Your task to perform on an android device: toggle priority inbox in the gmail app Image 0: 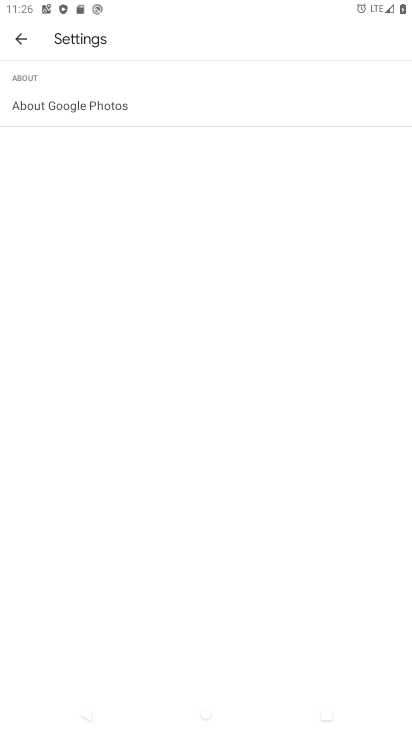
Step 0: press home button
Your task to perform on an android device: toggle priority inbox in the gmail app Image 1: 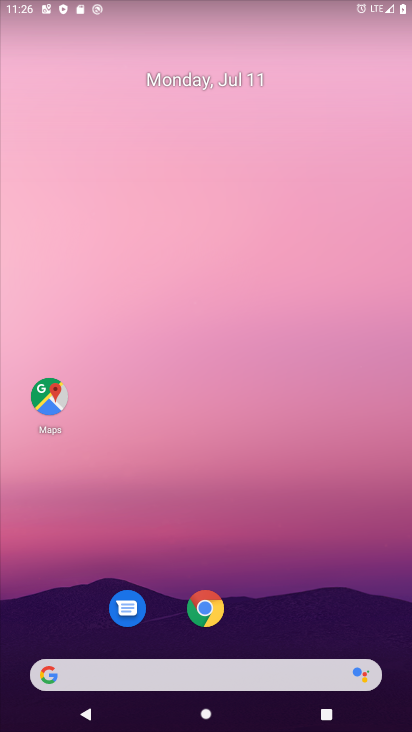
Step 1: drag from (37, 713) to (175, 85)
Your task to perform on an android device: toggle priority inbox in the gmail app Image 2: 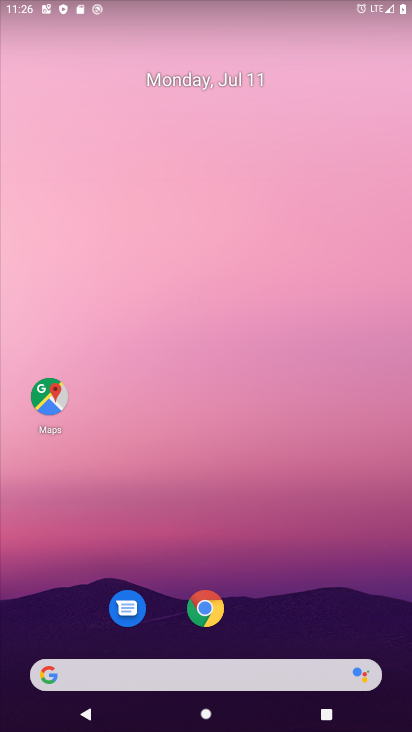
Step 2: drag from (79, 563) to (227, 0)
Your task to perform on an android device: toggle priority inbox in the gmail app Image 3: 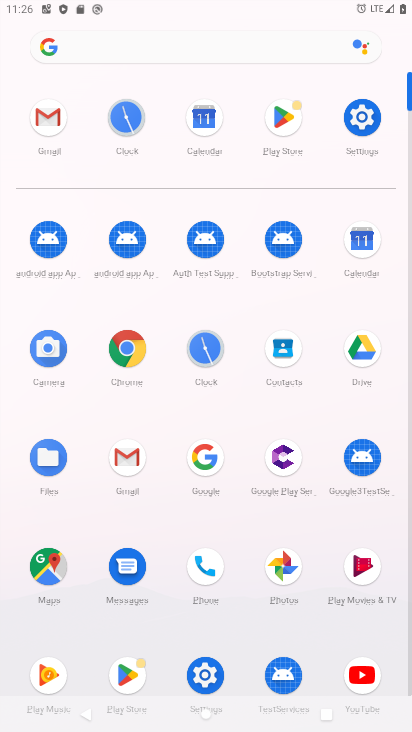
Step 3: click (38, 119)
Your task to perform on an android device: toggle priority inbox in the gmail app Image 4: 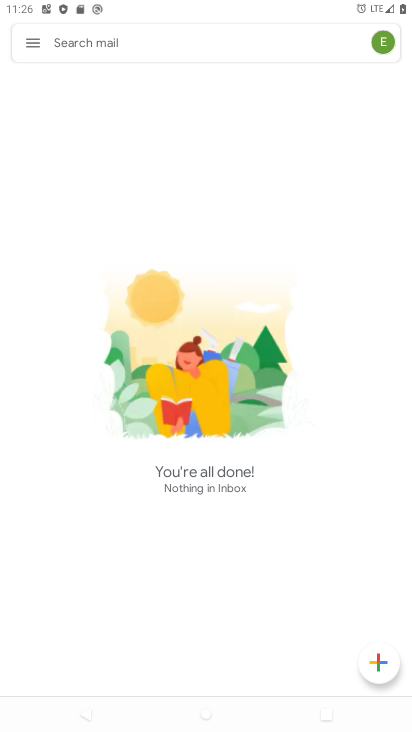
Step 4: click (43, 41)
Your task to perform on an android device: toggle priority inbox in the gmail app Image 5: 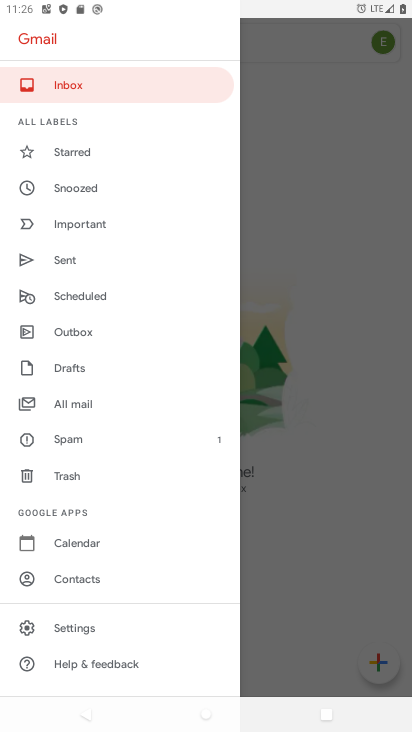
Step 5: click (103, 627)
Your task to perform on an android device: toggle priority inbox in the gmail app Image 6: 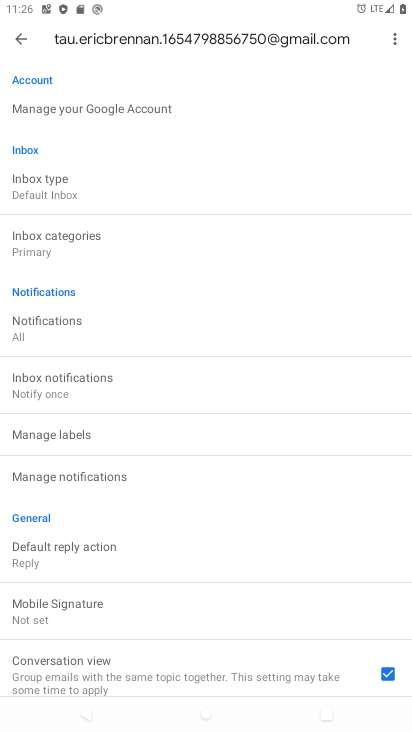
Step 6: click (86, 179)
Your task to perform on an android device: toggle priority inbox in the gmail app Image 7: 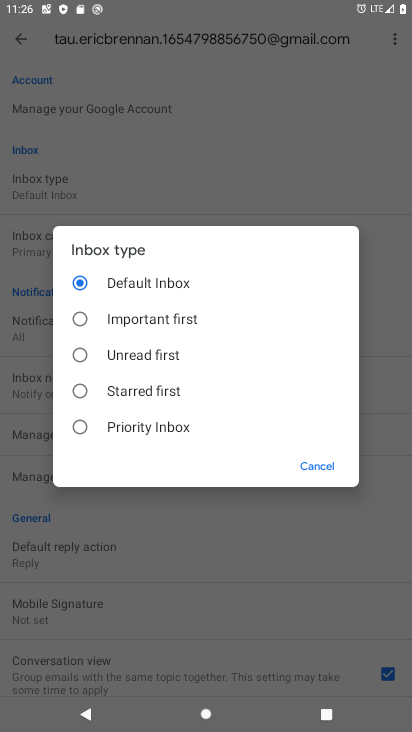
Step 7: click (102, 424)
Your task to perform on an android device: toggle priority inbox in the gmail app Image 8: 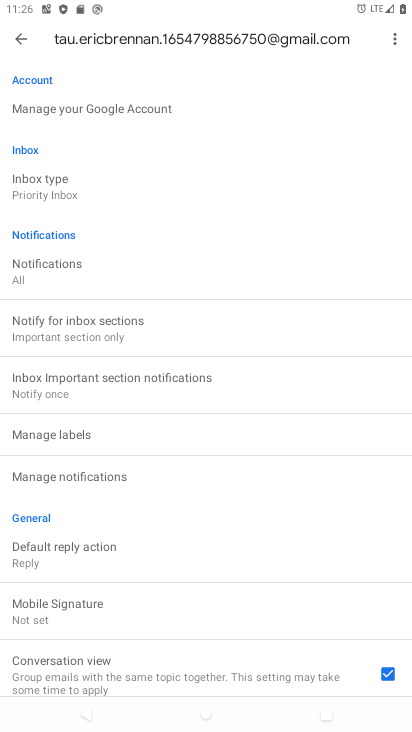
Step 8: task complete